Your task to perform on an android device: set an alarm Image 0: 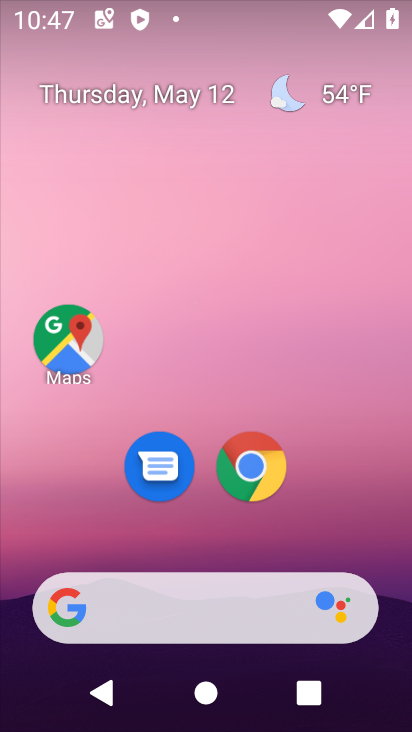
Step 0: drag from (343, 532) to (334, 154)
Your task to perform on an android device: set an alarm Image 1: 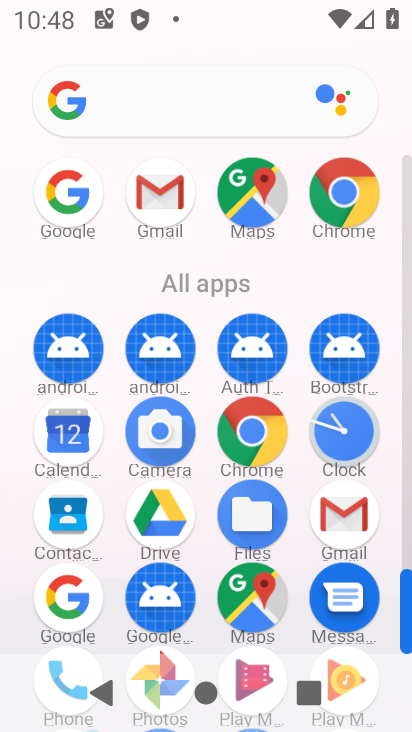
Step 1: click (362, 428)
Your task to perform on an android device: set an alarm Image 2: 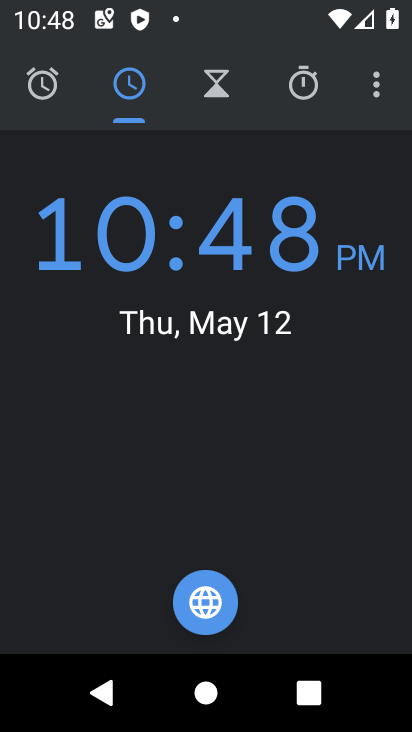
Step 2: click (53, 110)
Your task to perform on an android device: set an alarm Image 3: 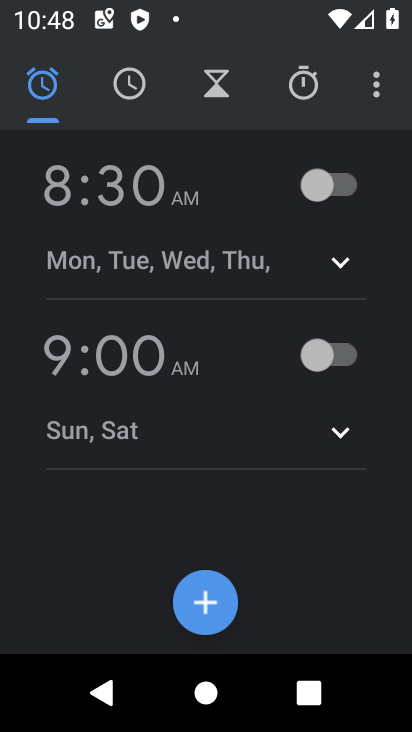
Step 3: click (195, 617)
Your task to perform on an android device: set an alarm Image 4: 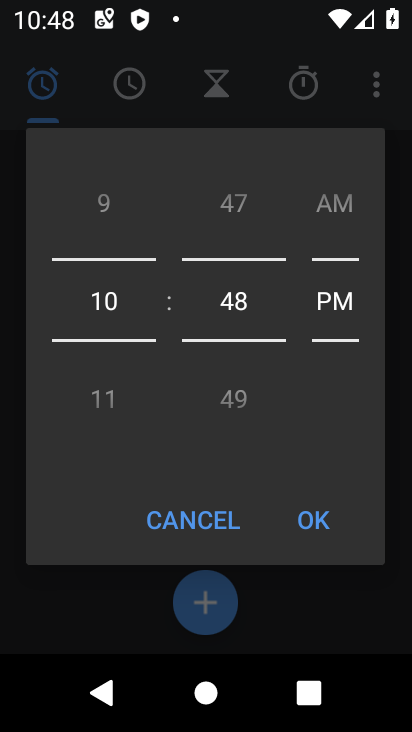
Step 4: click (297, 530)
Your task to perform on an android device: set an alarm Image 5: 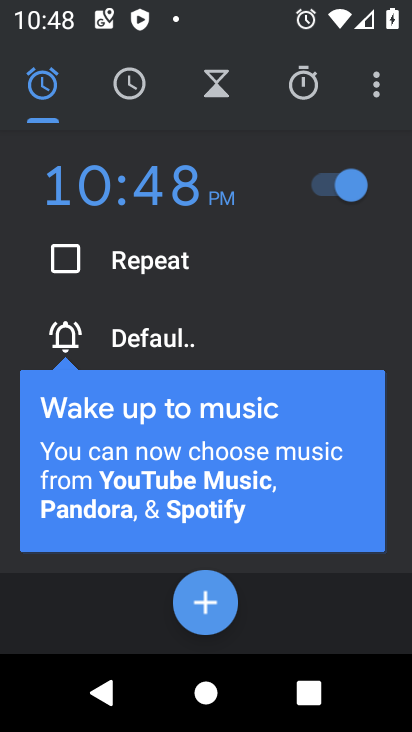
Step 5: task complete